Your task to perform on an android device: delete location history Image 0: 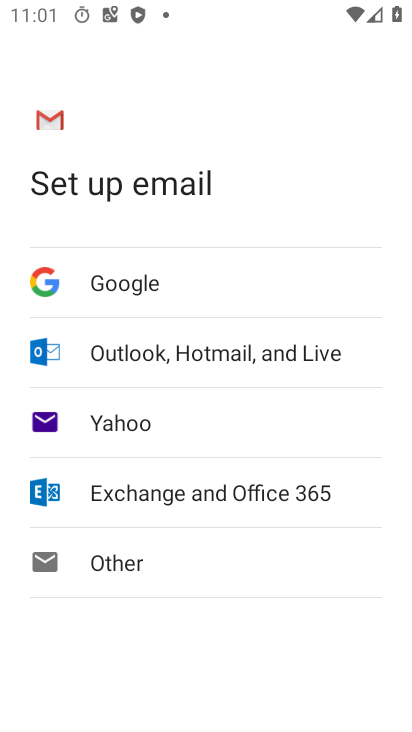
Step 0: press back button
Your task to perform on an android device: delete location history Image 1: 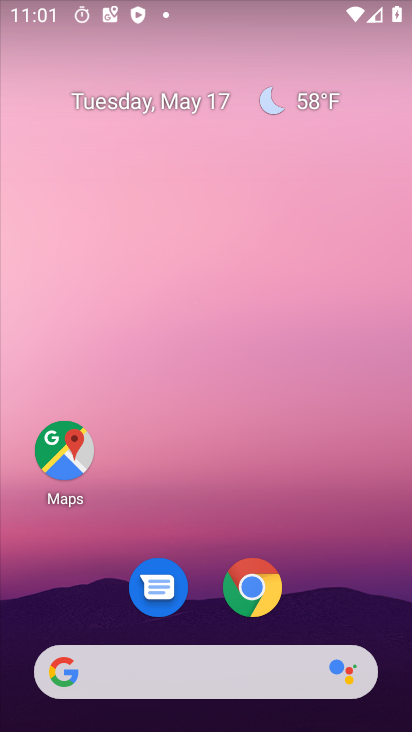
Step 1: click (67, 453)
Your task to perform on an android device: delete location history Image 2: 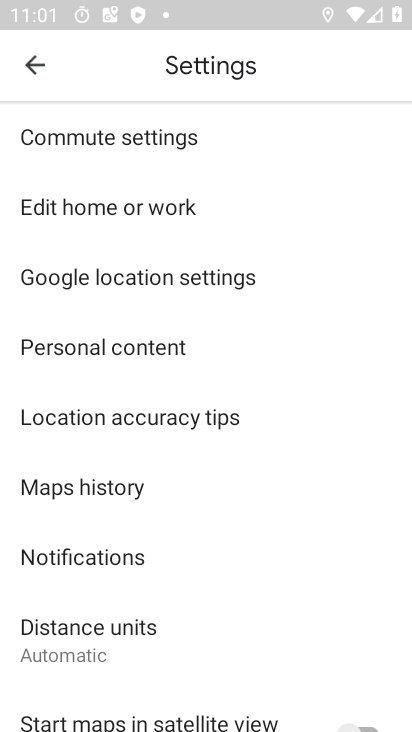
Step 2: click (74, 351)
Your task to perform on an android device: delete location history Image 3: 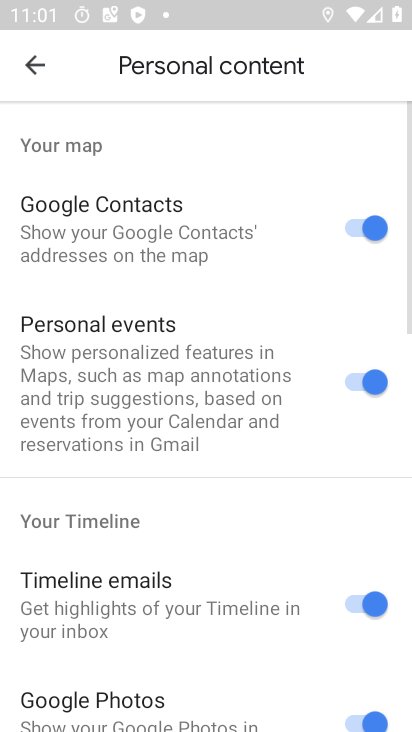
Step 3: drag from (130, 486) to (190, 376)
Your task to perform on an android device: delete location history Image 4: 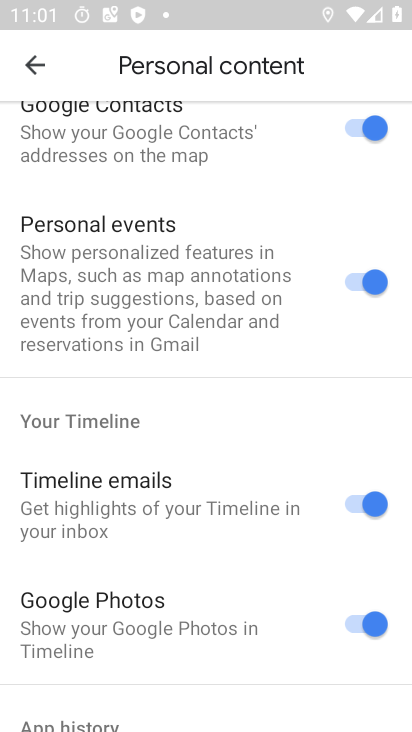
Step 4: drag from (129, 511) to (183, 413)
Your task to perform on an android device: delete location history Image 5: 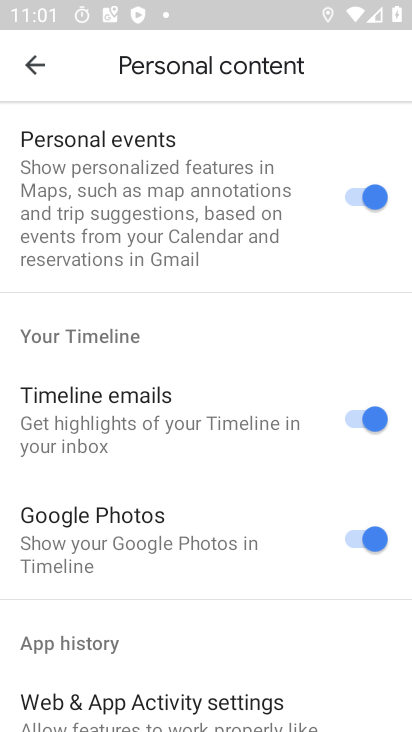
Step 5: drag from (113, 575) to (184, 458)
Your task to perform on an android device: delete location history Image 6: 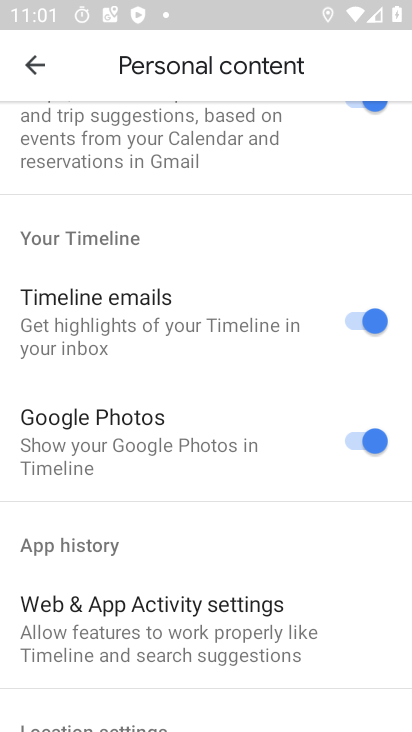
Step 6: drag from (154, 558) to (214, 458)
Your task to perform on an android device: delete location history Image 7: 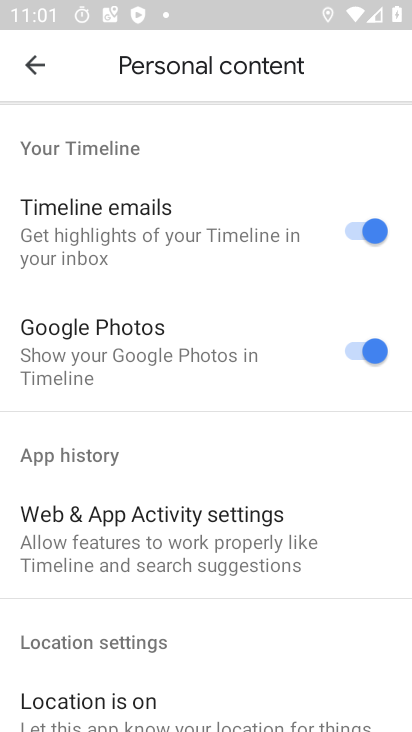
Step 7: drag from (146, 588) to (228, 434)
Your task to perform on an android device: delete location history Image 8: 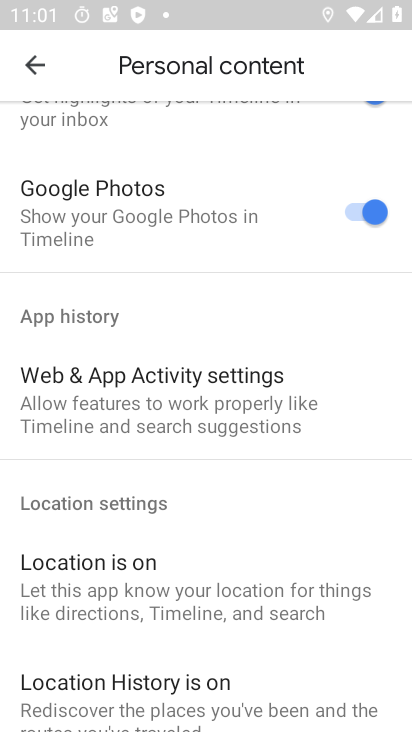
Step 8: drag from (181, 545) to (220, 436)
Your task to perform on an android device: delete location history Image 9: 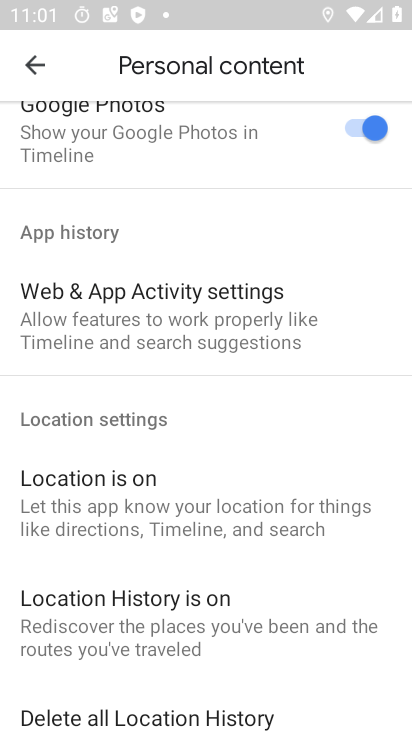
Step 9: drag from (161, 564) to (264, 432)
Your task to perform on an android device: delete location history Image 10: 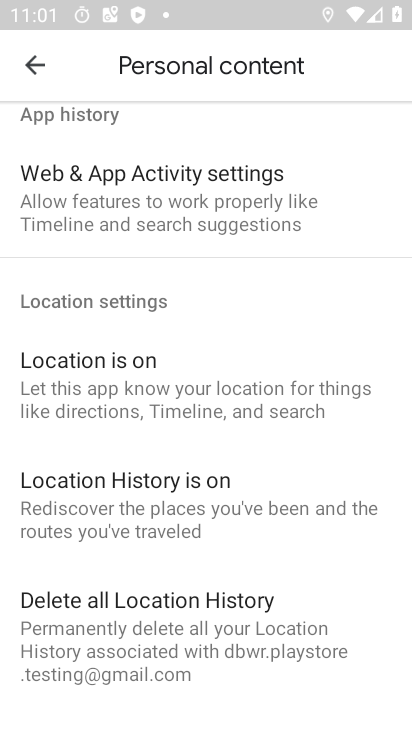
Step 10: drag from (170, 574) to (318, 379)
Your task to perform on an android device: delete location history Image 11: 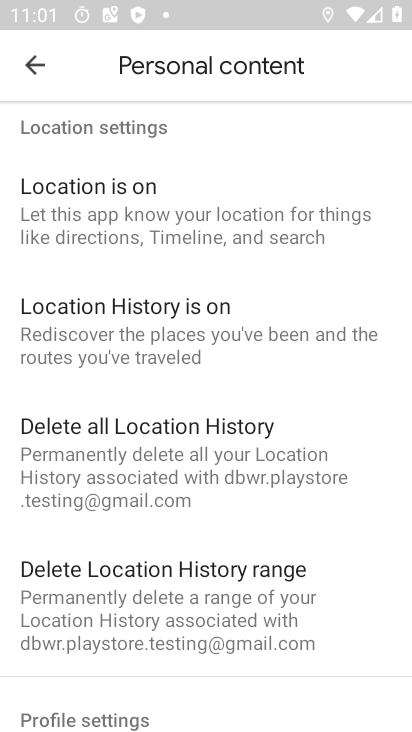
Step 11: click (228, 423)
Your task to perform on an android device: delete location history Image 12: 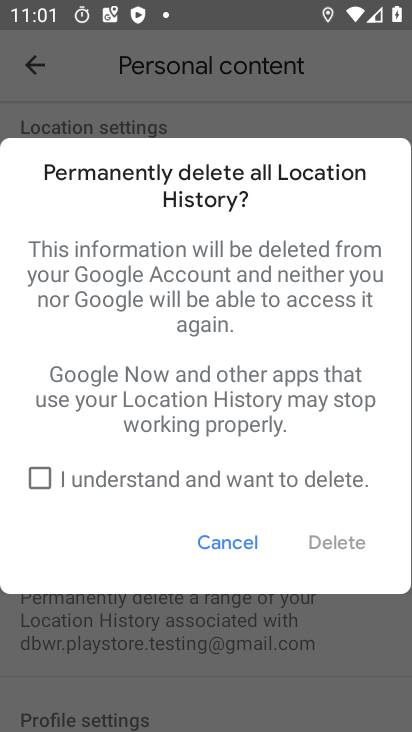
Step 12: click (51, 470)
Your task to perform on an android device: delete location history Image 13: 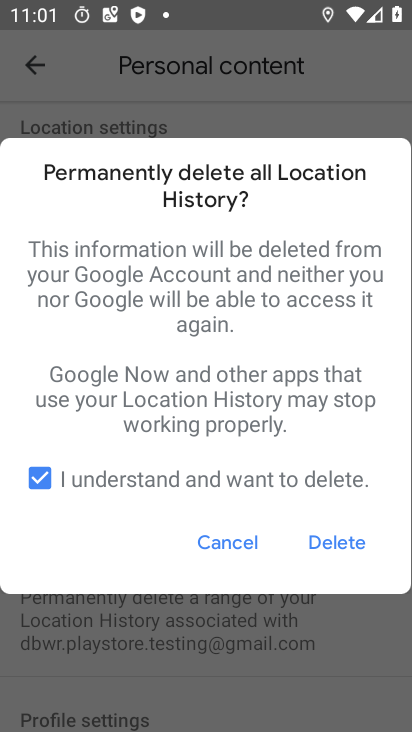
Step 13: click (345, 539)
Your task to perform on an android device: delete location history Image 14: 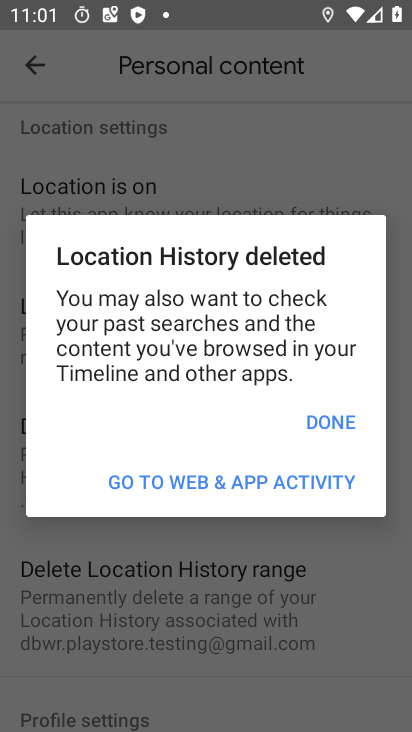
Step 14: click (340, 422)
Your task to perform on an android device: delete location history Image 15: 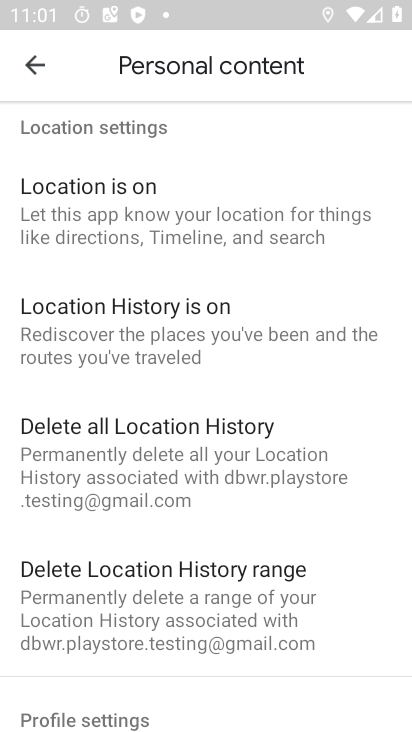
Step 15: task complete